Your task to perform on an android device: open a new tab in the chrome app Image 0: 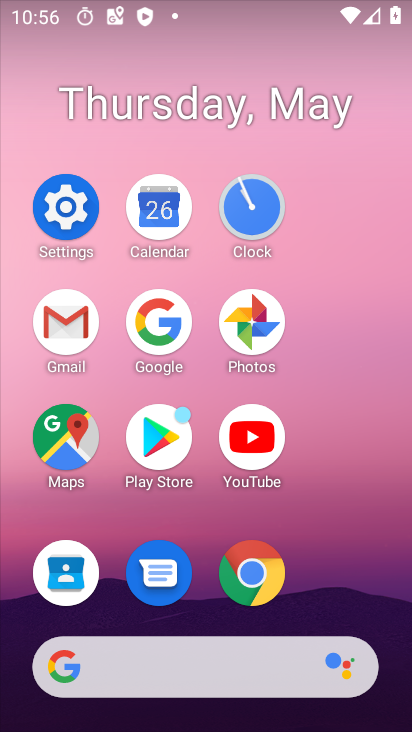
Step 0: click (273, 560)
Your task to perform on an android device: open a new tab in the chrome app Image 1: 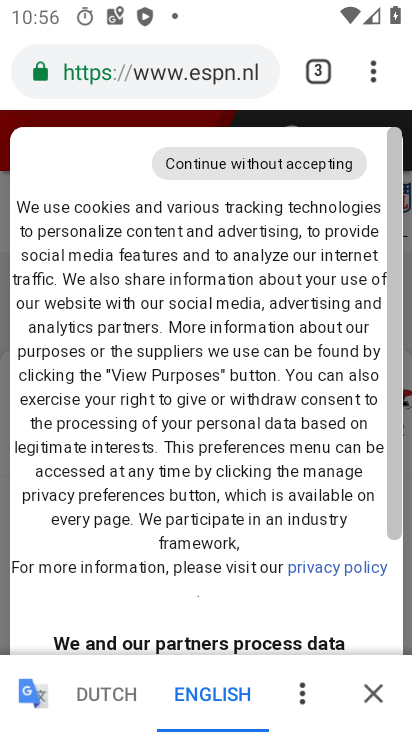
Step 1: click (315, 66)
Your task to perform on an android device: open a new tab in the chrome app Image 2: 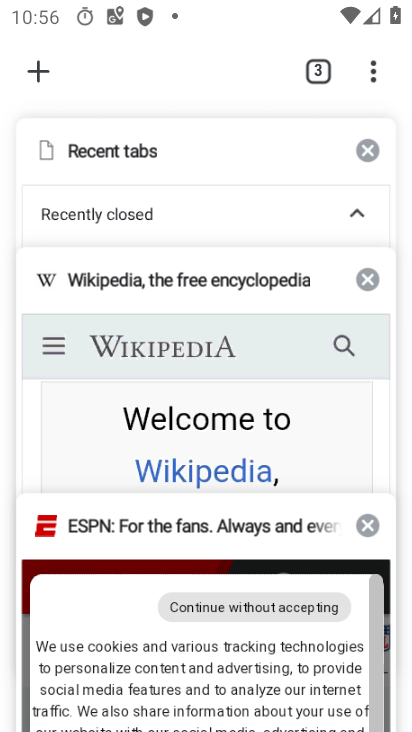
Step 2: click (31, 59)
Your task to perform on an android device: open a new tab in the chrome app Image 3: 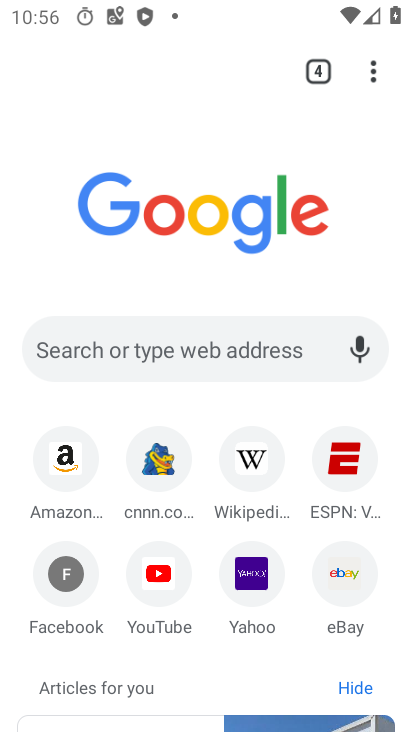
Step 3: task complete